Your task to perform on an android device: turn notification dots off Image 0: 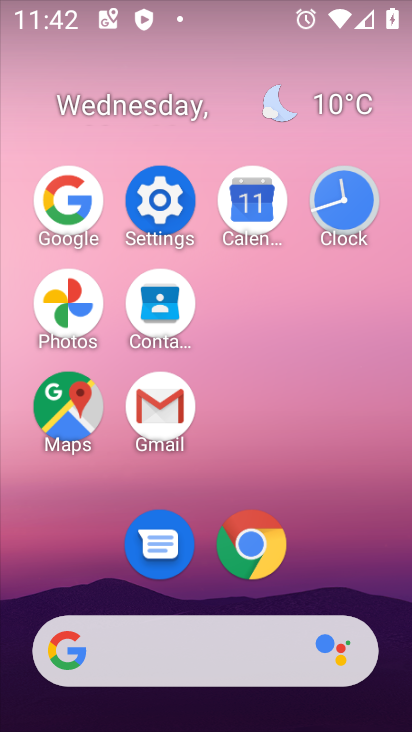
Step 0: click (153, 202)
Your task to perform on an android device: turn notification dots off Image 1: 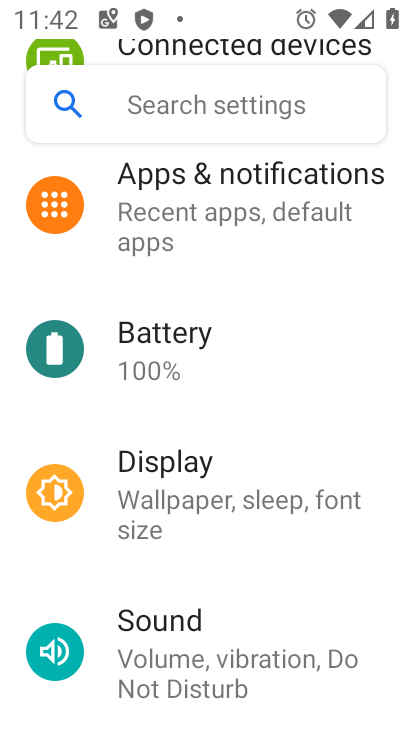
Step 1: click (260, 230)
Your task to perform on an android device: turn notification dots off Image 2: 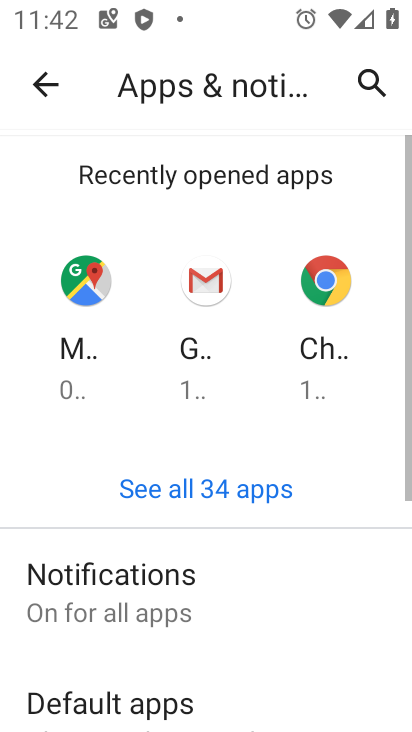
Step 2: click (203, 620)
Your task to perform on an android device: turn notification dots off Image 3: 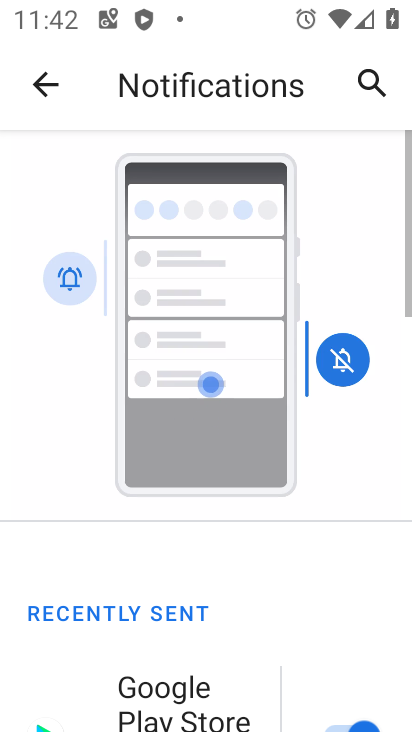
Step 3: drag from (213, 679) to (278, 199)
Your task to perform on an android device: turn notification dots off Image 4: 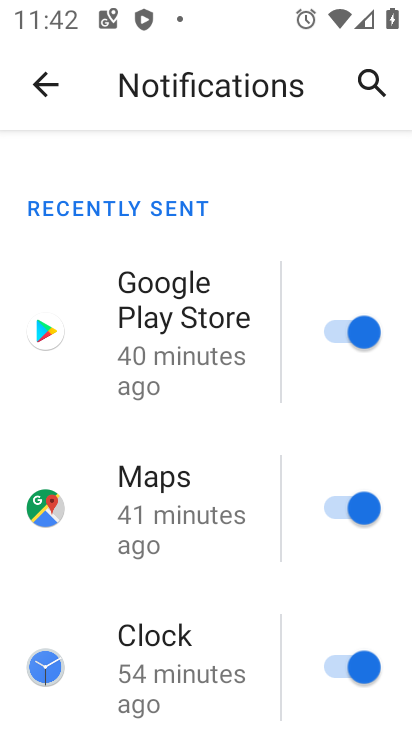
Step 4: drag from (240, 452) to (264, 154)
Your task to perform on an android device: turn notification dots off Image 5: 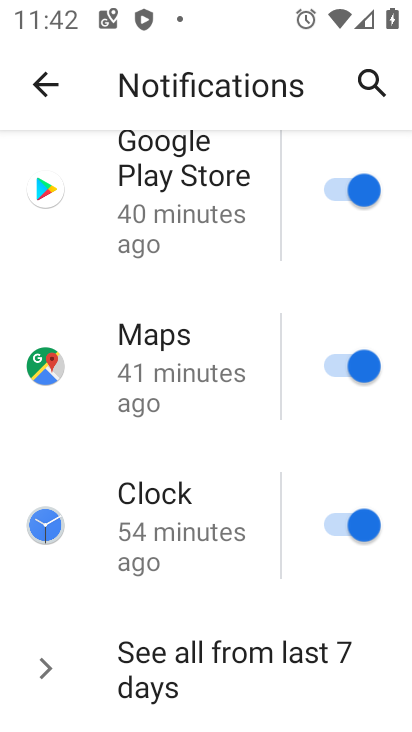
Step 5: drag from (227, 695) to (248, 209)
Your task to perform on an android device: turn notification dots off Image 6: 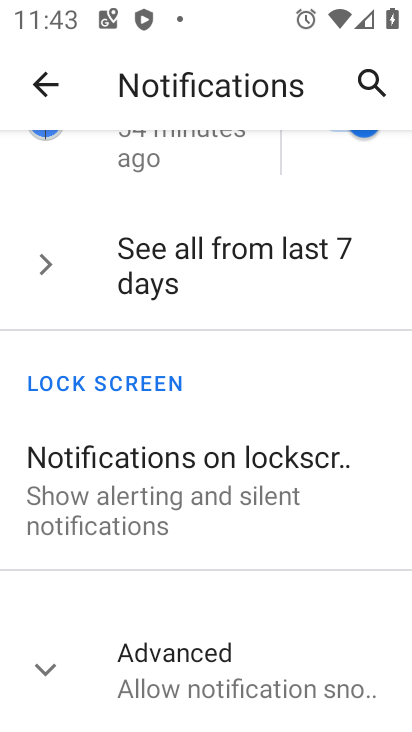
Step 6: click (201, 647)
Your task to perform on an android device: turn notification dots off Image 7: 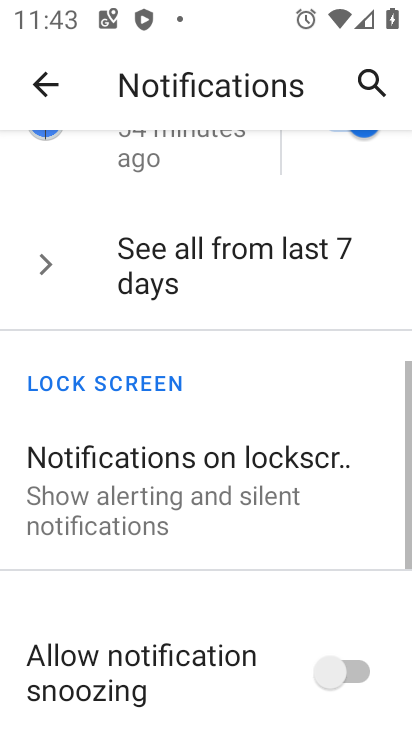
Step 7: drag from (201, 647) to (235, 238)
Your task to perform on an android device: turn notification dots off Image 8: 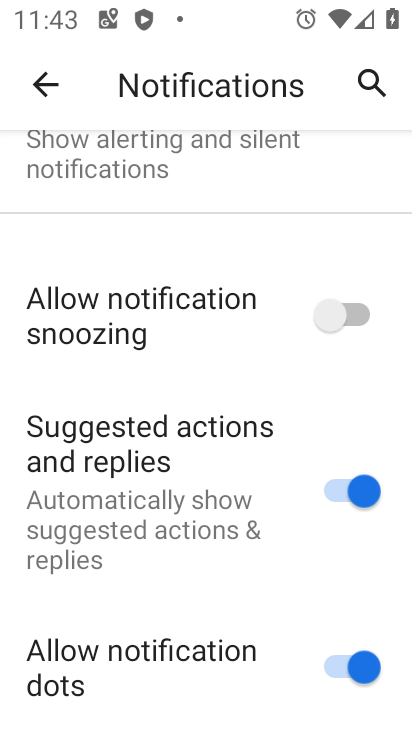
Step 8: click (343, 677)
Your task to perform on an android device: turn notification dots off Image 9: 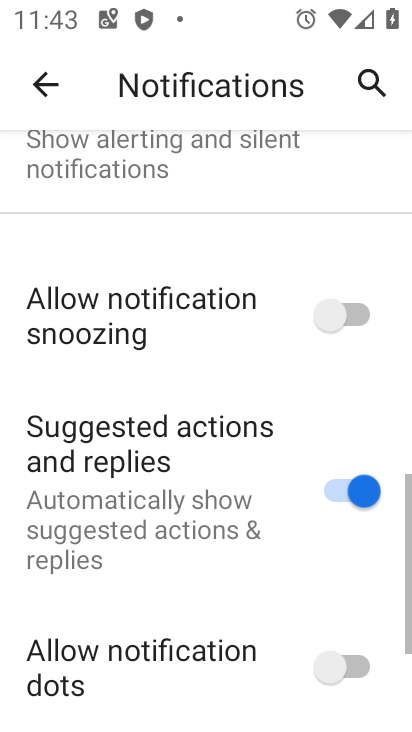
Step 9: task complete